Your task to perform on an android device: change the clock style Image 0: 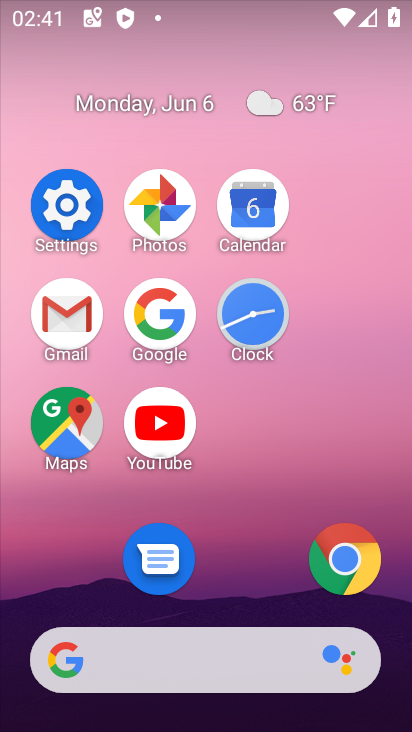
Step 0: click (267, 311)
Your task to perform on an android device: change the clock style Image 1: 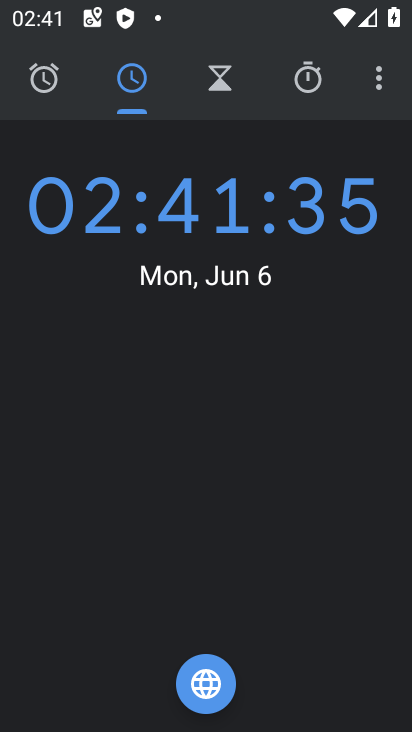
Step 1: click (367, 88)
Your task to perform on an android device: change the clock style Image 2: 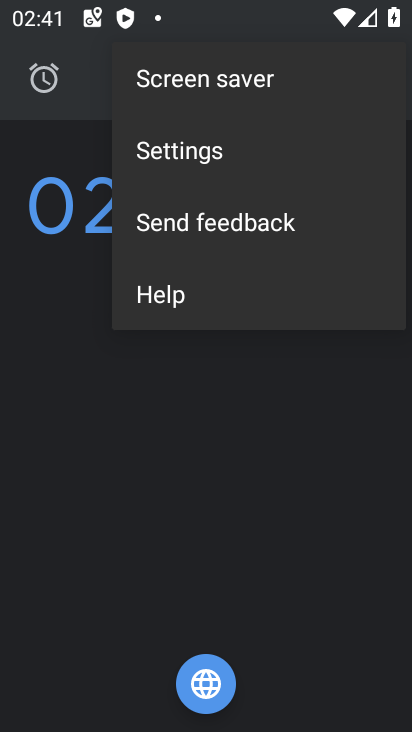
Step 2: click (275, 143)
Your task to perform on an android device: change the clock style Image 3: 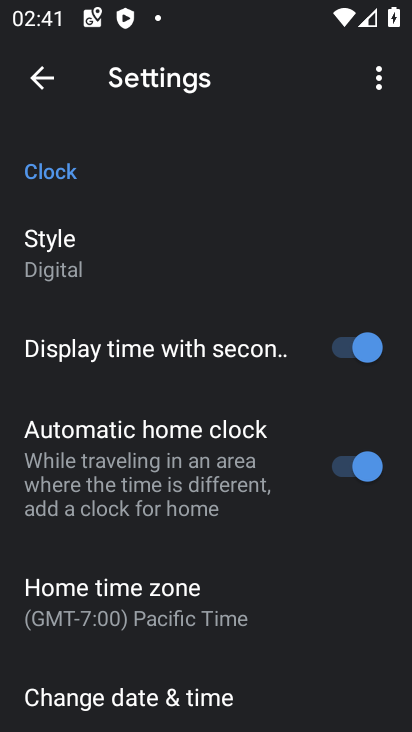
Step 3: click (112, 249)
Your task to perform on an android device: change the clock style Image 4: 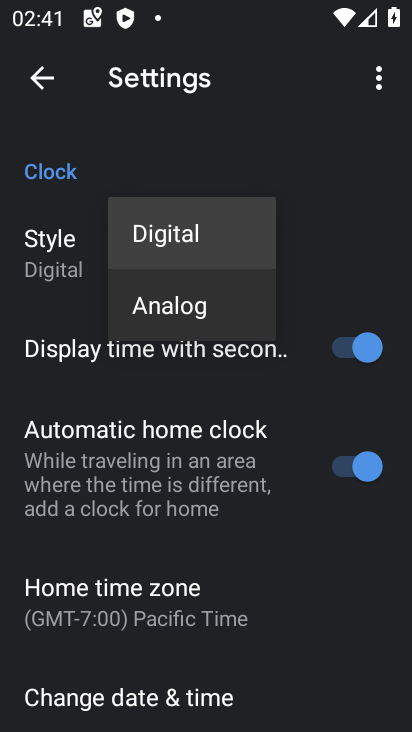
Step 4: click (161, 308)
Your task to perform on an android device: change the clock style Image 5: 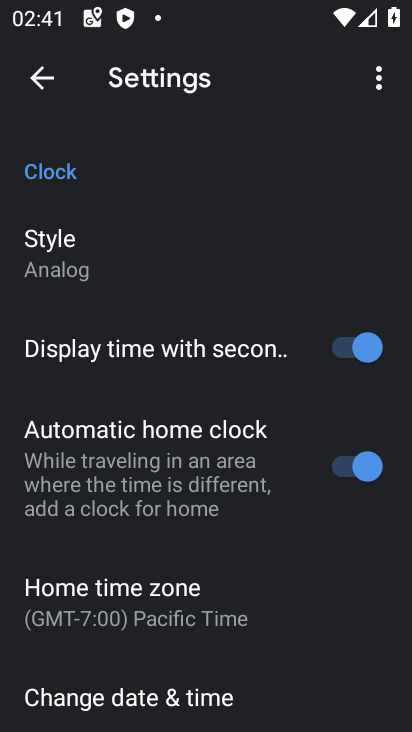
Step 5: task complete